Your task to perform on an android device: find which apps use the phone's location Image 0: 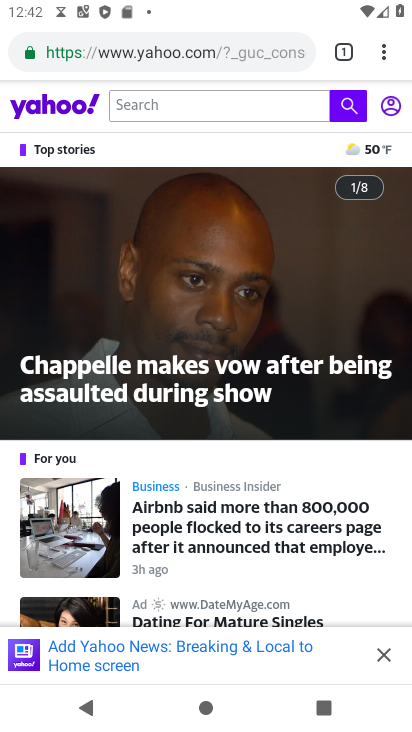
Step 0: press home button
Your task to perform on an android device: find which apps use the phone's location Image 1: 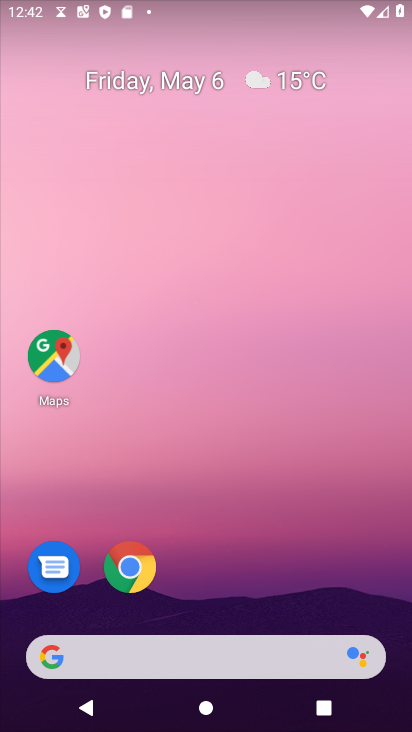
Step 1: drag from (302, 526) to (290, 17)
Your task to perform on an android device: find which apps use the phone's location Image 2: 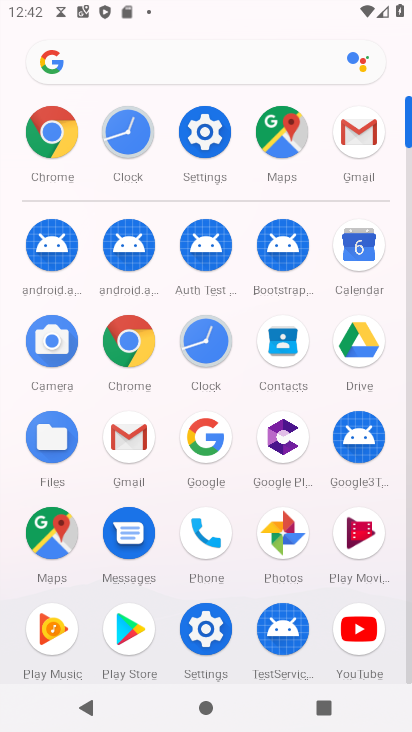
Step 2: click (206, 152)
Your task to perform on an android device: find which apps use the phone's location Image 3: 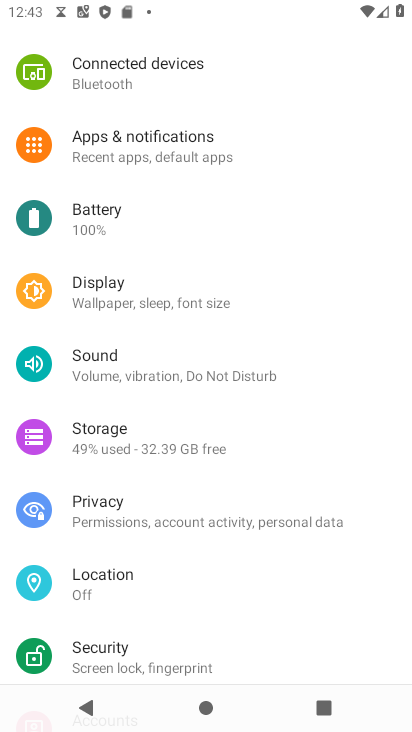
Step 3: drag from (247, 572) to (273, 261)
Your task to perform on an android device: find which apps use the phone's location Image 4: 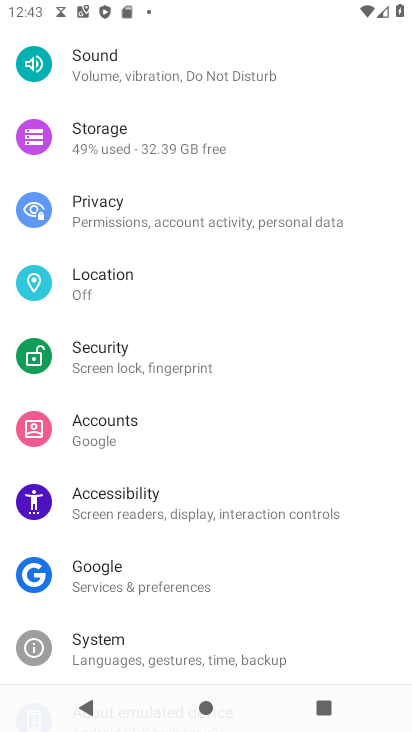
Step 4: click (114, 291)
Your task to perform on an android device: find which apps use the phone's location Image 5: 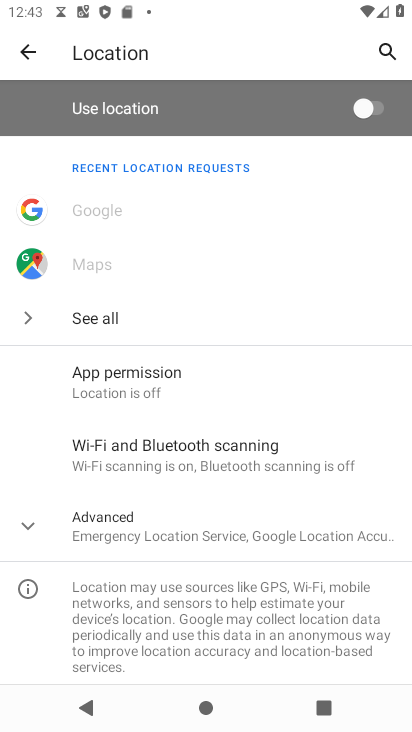
Step 5: click (172, 545)
Your task to perform on an android device: find which apps use the phone's location Image 6: 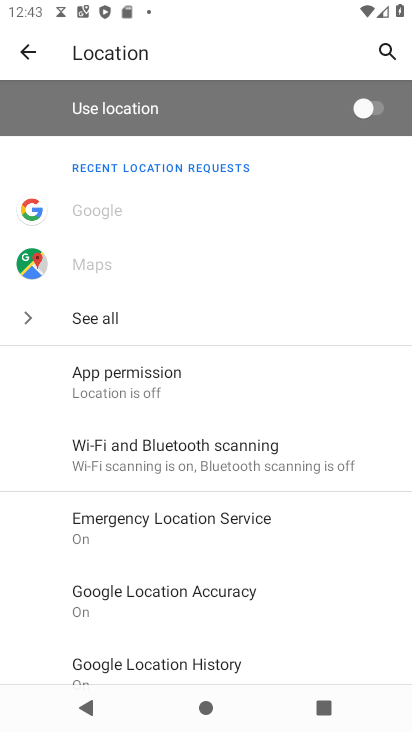
Step 6: drag from (208, 629) to (243, 349)
Your task to perform on an android device: find which apps use the phone's location Image 7: 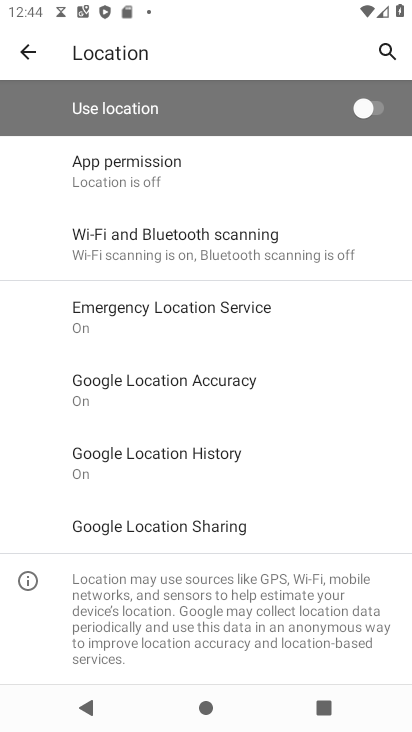
Step 7: drag from (205, 601) to (240, 232)
Your task to perform on an android device: find which apps use the phone's location Image 8: 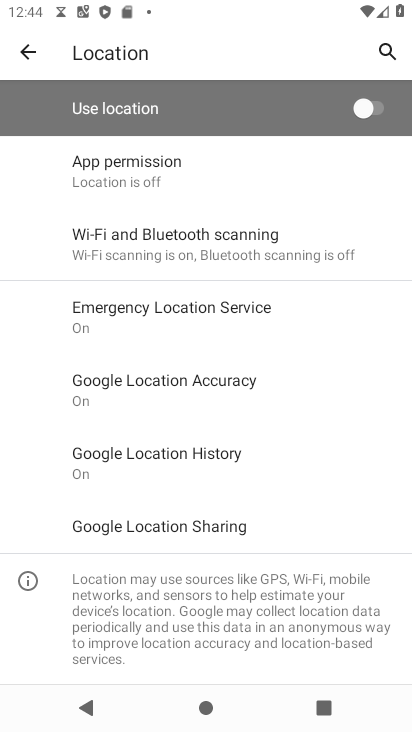
Step 8: click (139, 174)
Your task to perform on an android device: find which apps use the phone's location Image 9: 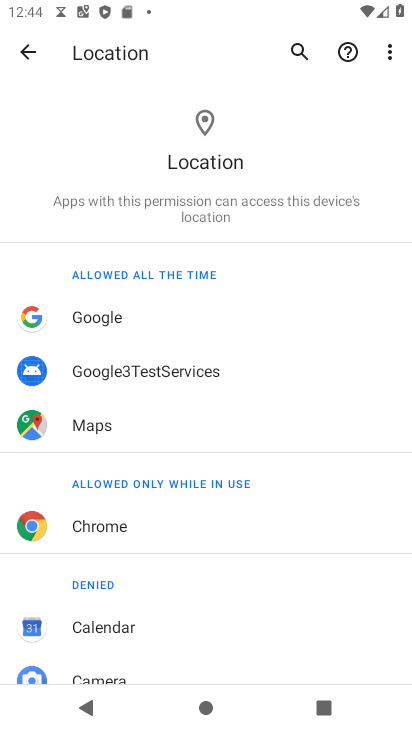
Step 9: task complete